Your task to perform on an android device: Open the calendar and show me this week's events? Image 0: 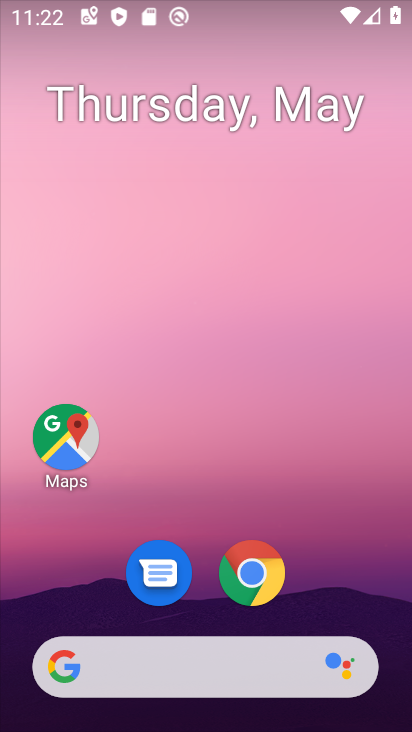
Step 0: drag from (344, 546) to (274, 279)
Your task to perform on an android device: Open the calendar and show me this week's events? Image 1: 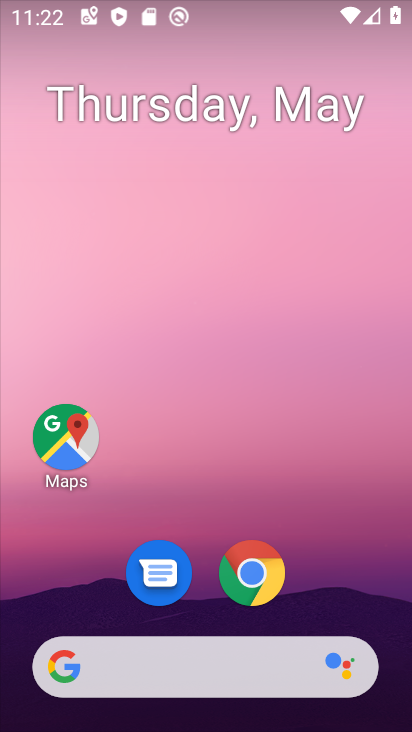
Step 1: drag from (348, 581) to (294, 149)
Your task to perform on an android device: Open the calendar and show me this week's events? Image 2: 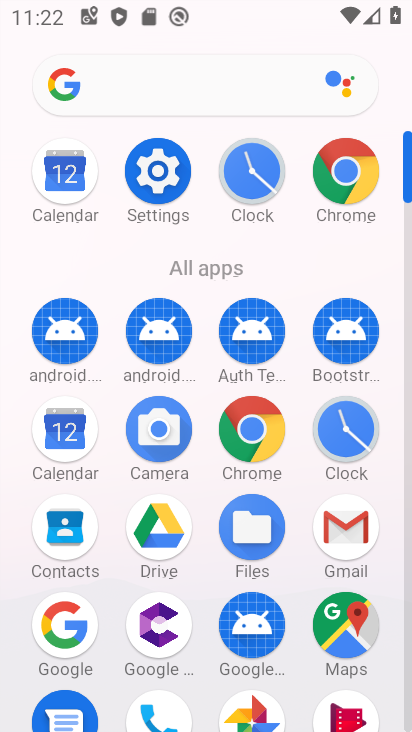
Step 2: click (75, 429)
Your task to perform on an android device: Open the calendar and show me this week's events? Image 3: 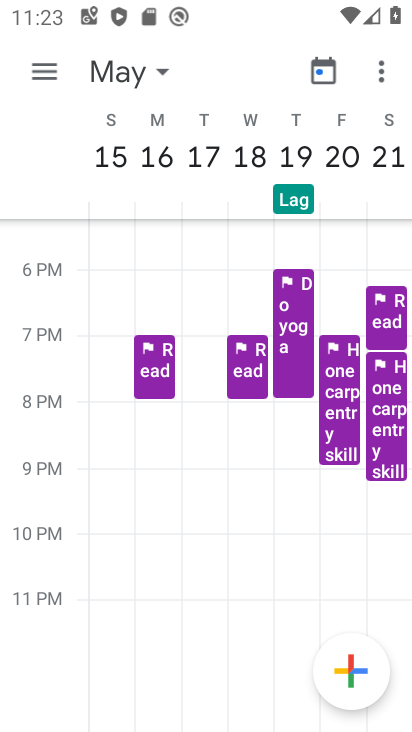
Step 3: click (48, 79)
Your task to perform on an android device: Open the calendar and show me this week's events? Image 4: 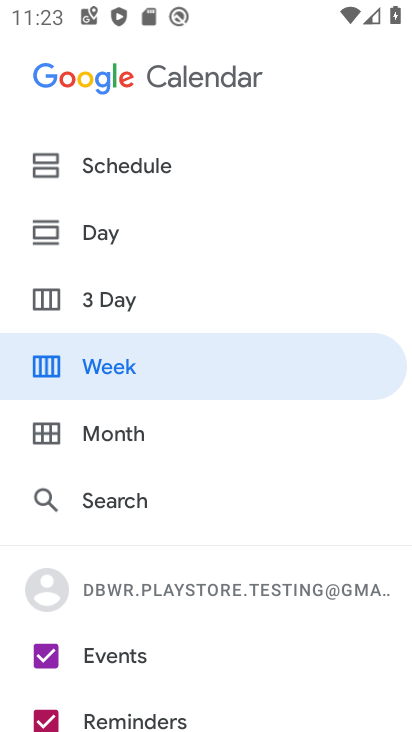
Step 4: click (212, 380)
Your task to perform on an android device: Open the calendar and show me this week's events? Image 5: 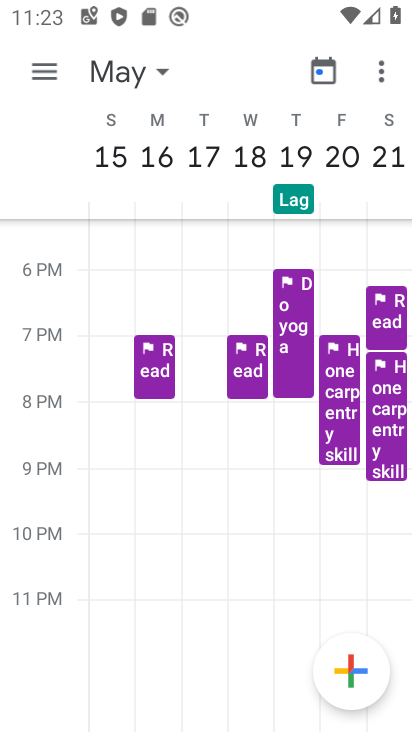
Step 5: click (150, 64)
Your task to perform on an android device: Open the calendar and show me this week's events? Image 6: 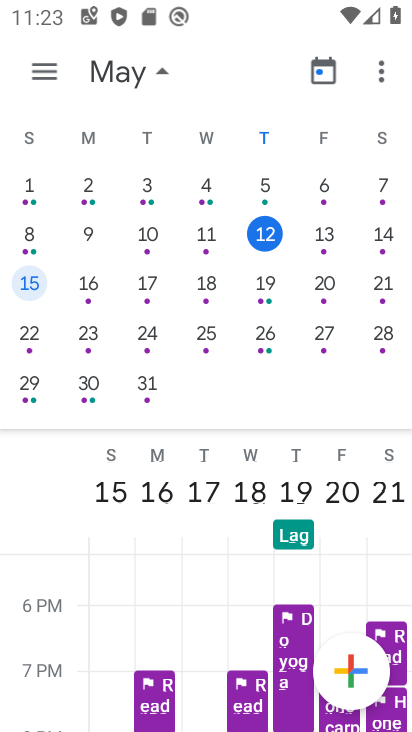
Step 6: click (261, 240)
Your task to perform on an android device: Open the calendar and show me this week's events? Image 7: 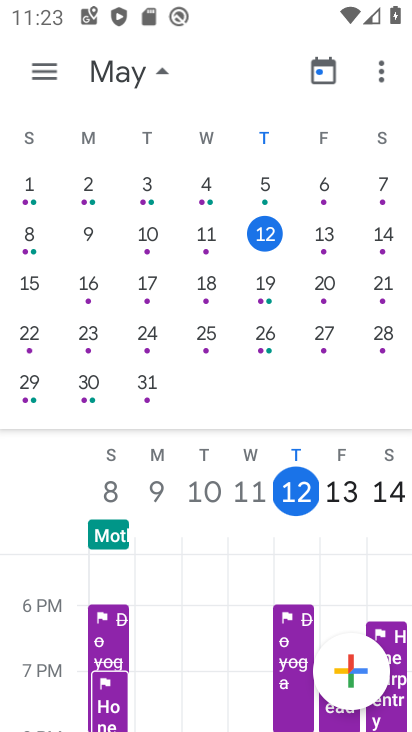
Step 7: task complete